Your task to perform on an android device: When is my next appointment? Image 0: 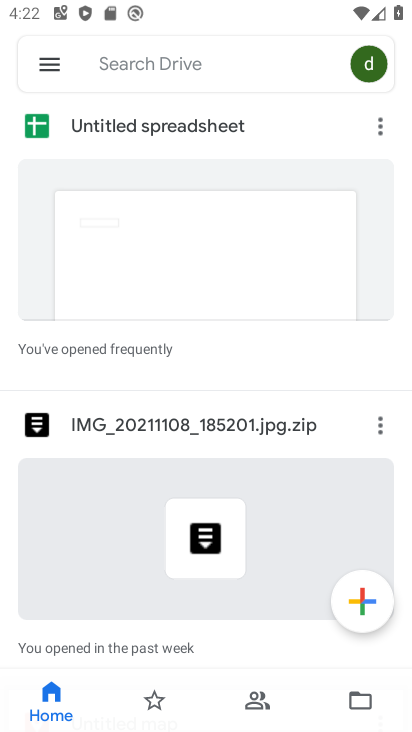
Step 0: press home button
Your task to perform on an android device: When is my next appointment? Image 1: 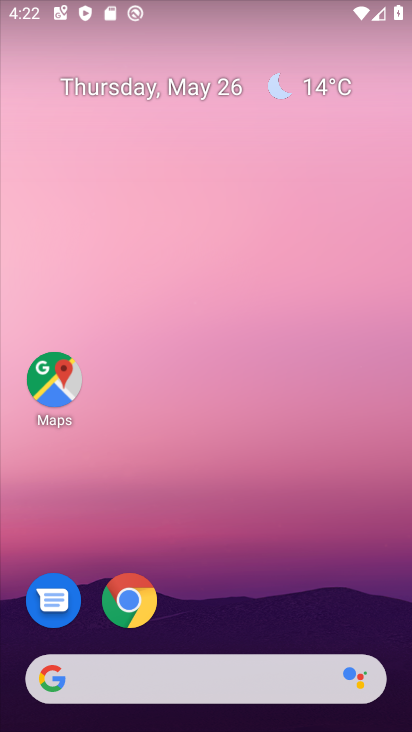
Step 1: click (172, 82)
Your task to perform on an android device: When is my next appointment? Image 2: 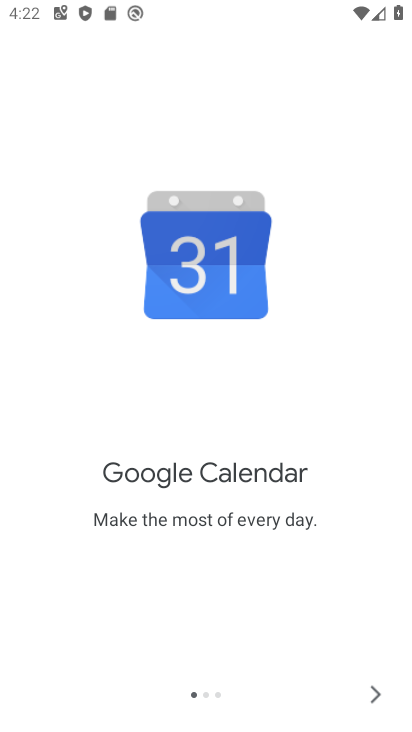
Step 2: click (363, 698)
Your task to perform on an android device: When is my next appointment? Image 3: 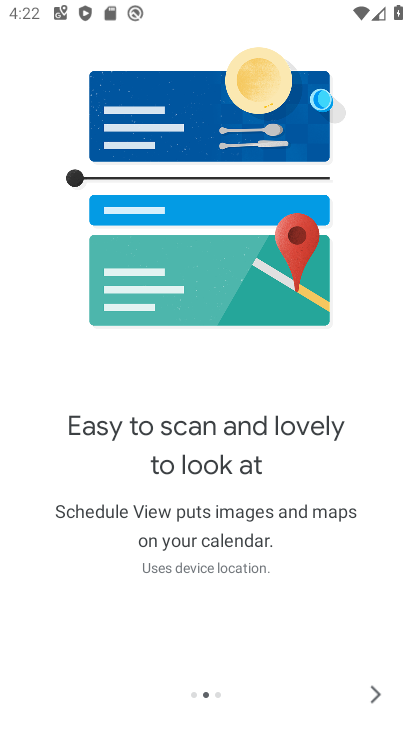
Step 3: click (363, 698)
Your task to perform on an android device: When is my next appointment? Image 4: 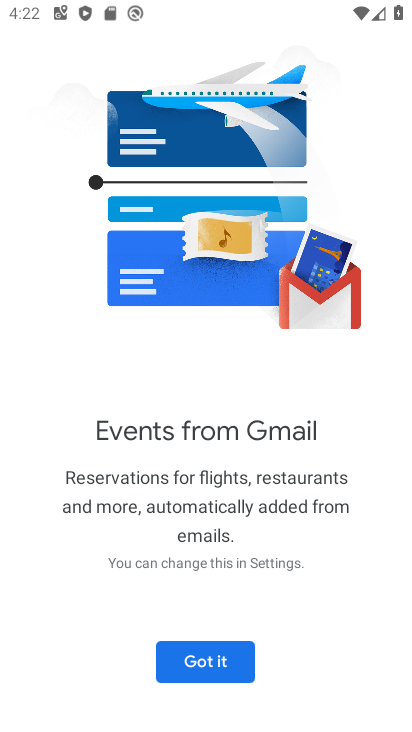
Step 4: click (214, 675)
Your task to perform on an android device: When is my next appointment? Image 5: 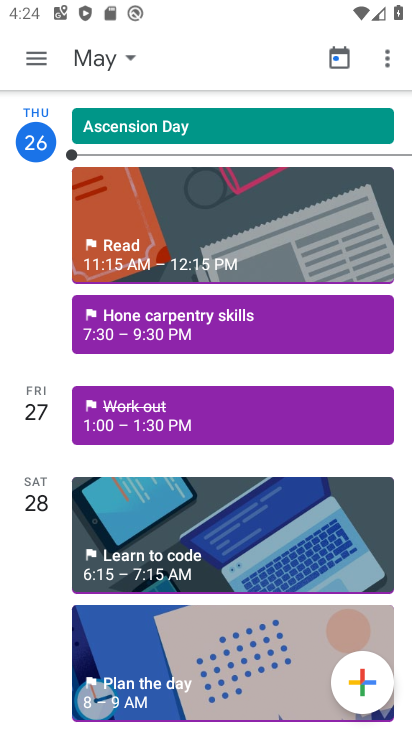
Step 5: task complete